Your task to perform on an android device: add a label to a message in the gmail app Image 0: 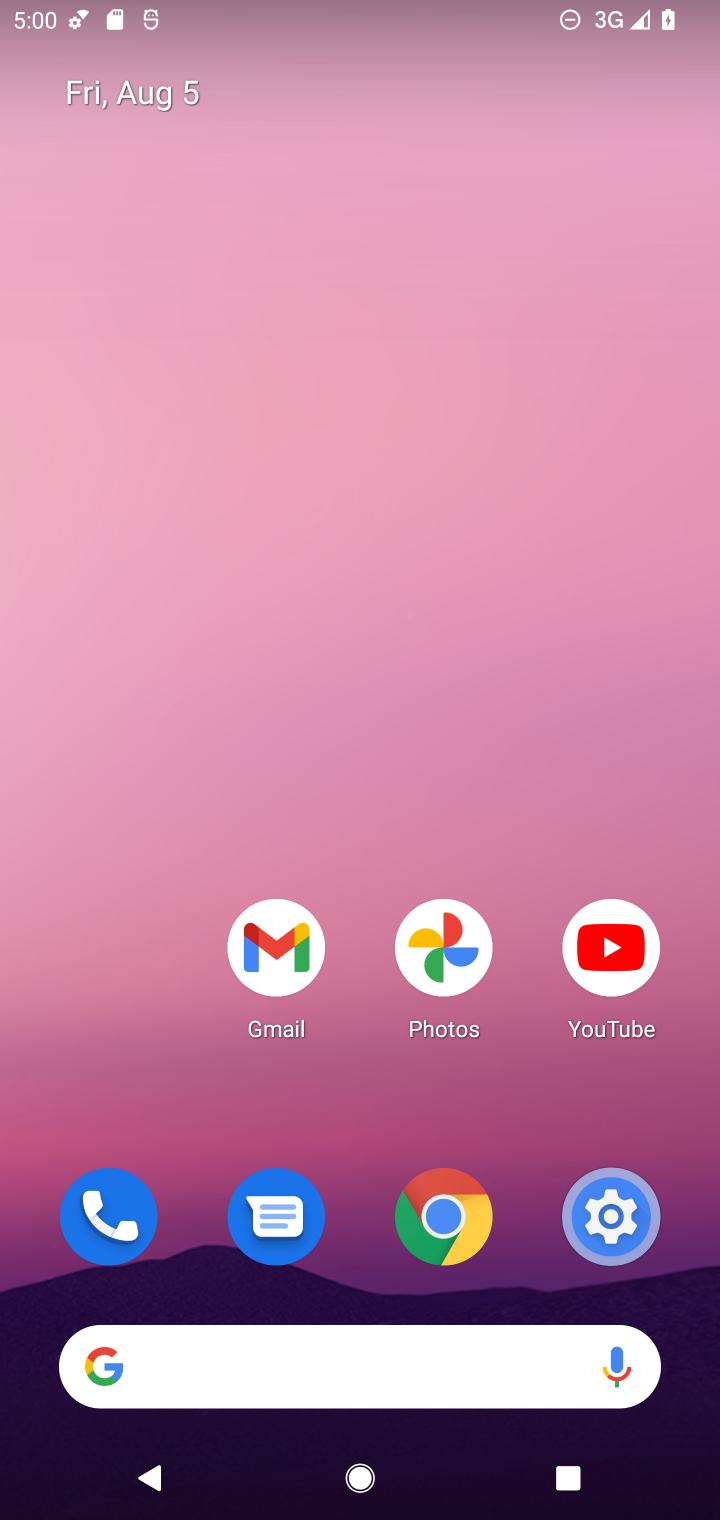
Step 0: click (293, 968)
Your task to perform on an android device: add a label to a message in the gmail app Image 1: 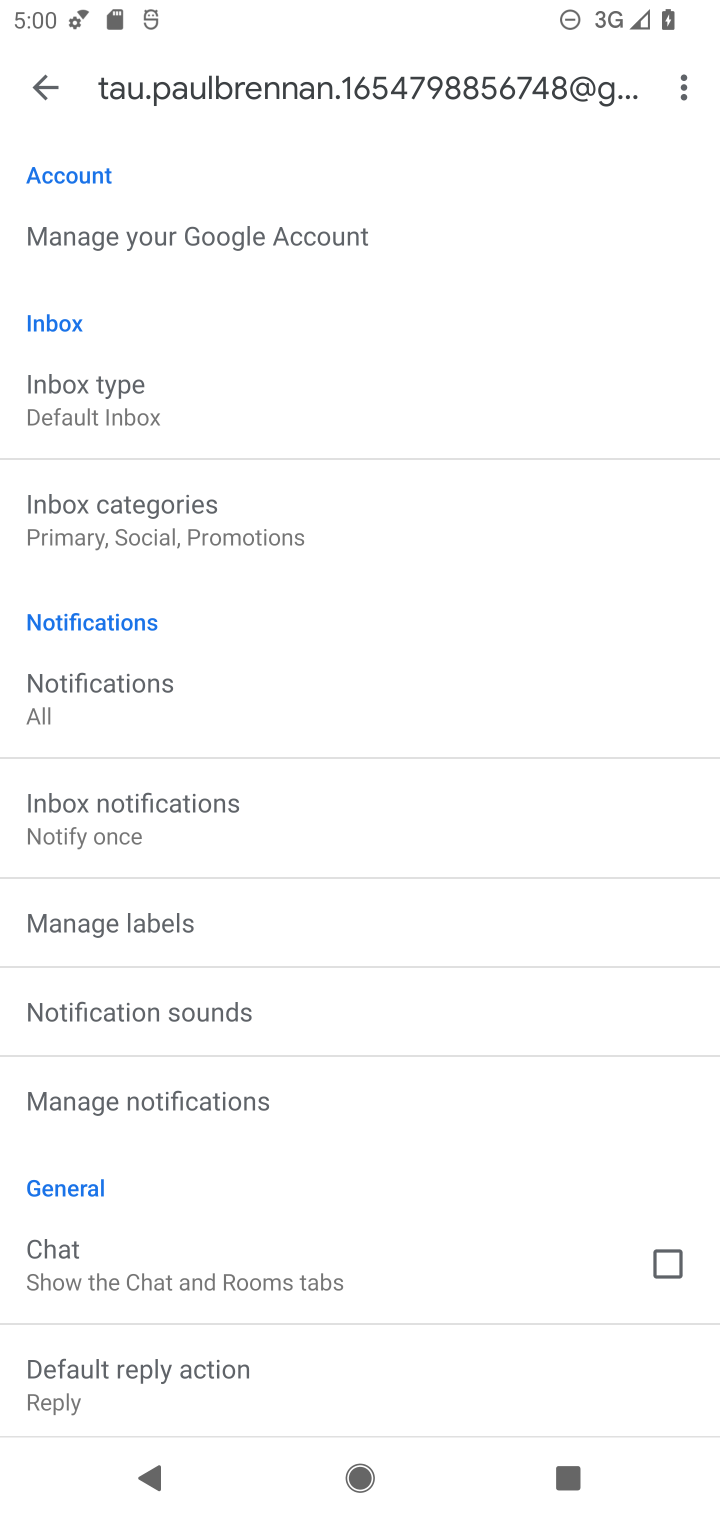
Step 1: click (41, 103)
Your task to perform on an android device: add a label to a message in the gmail app Image 2: 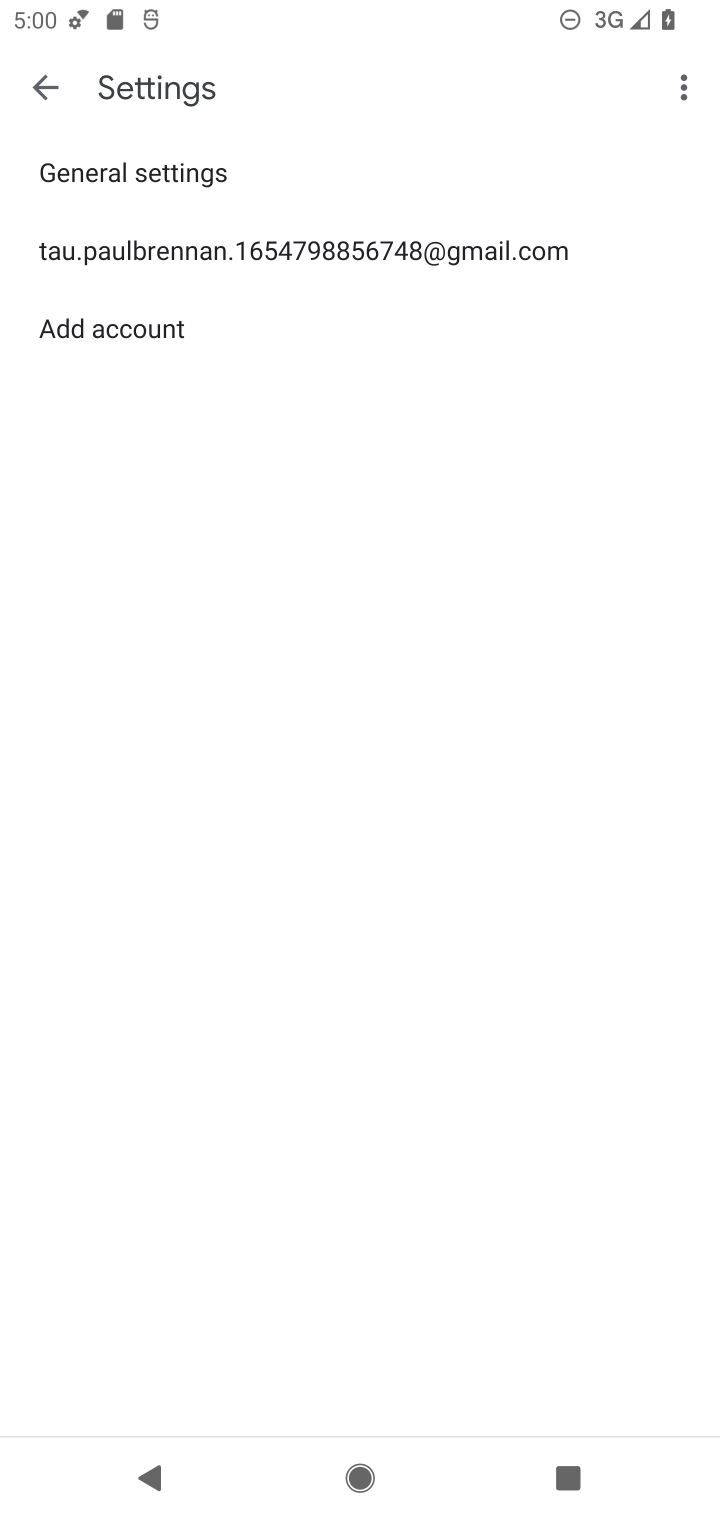
Step 2: click (41, 79)
Your task to perform on an android device: add a label to a message in the gmail app Image 3: 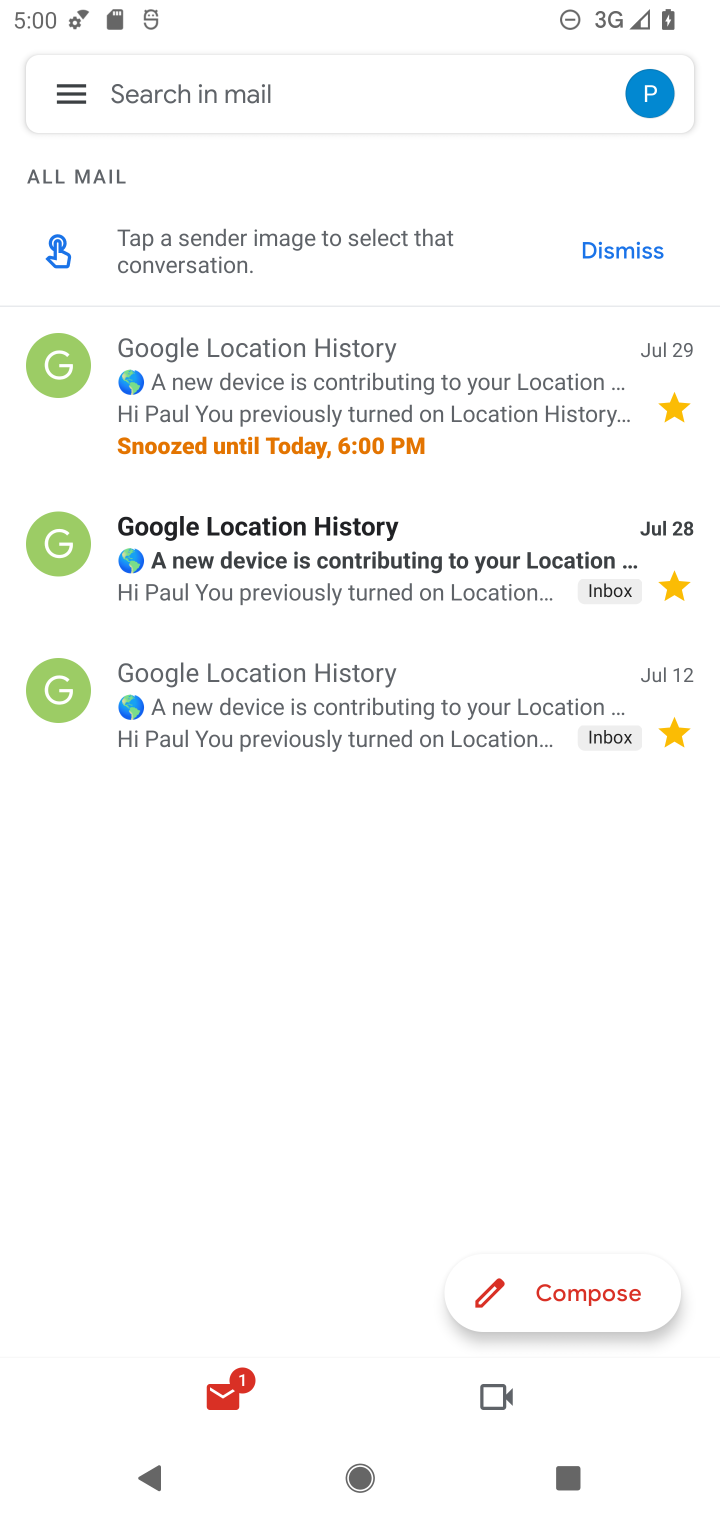
Step 3: click (378, 384)
Your task to perform on an android device: add a label to a message in the gmail app Image 4: 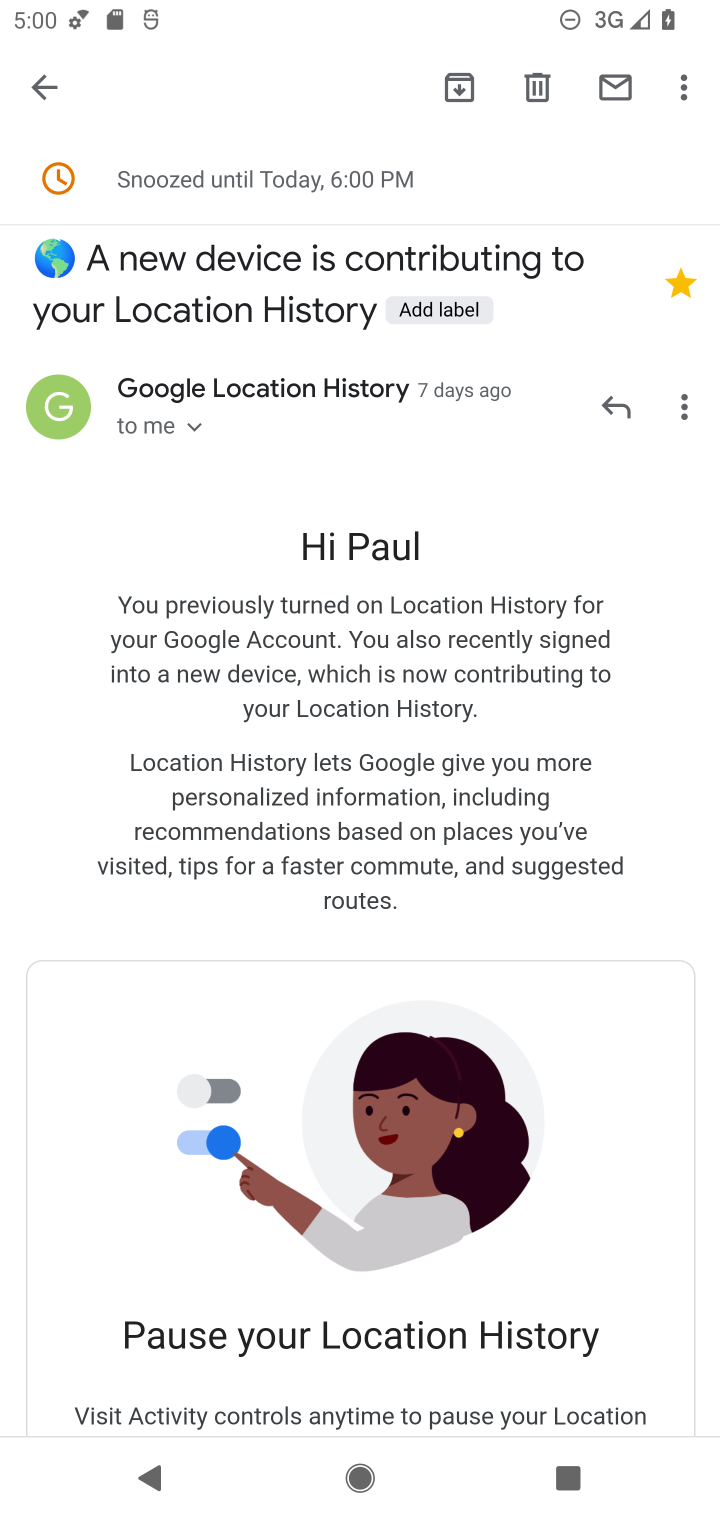
Step 4: click (433, 299)
Your task to perform on an android device: add a label to a message in the gmail app Image 5: 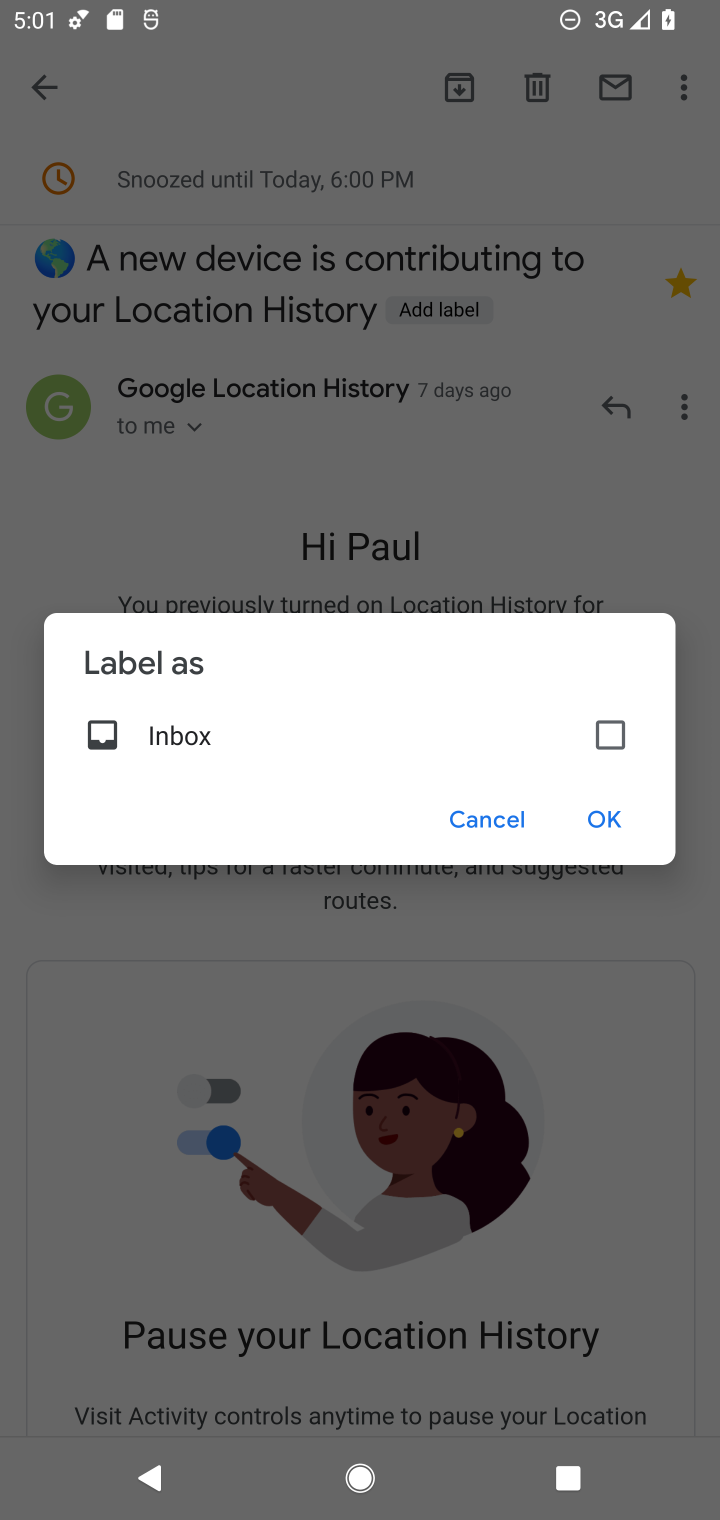
Step 5: click (345, 738)
Your task to perform on an android device: add a label to a message in the gmail app Image 6: 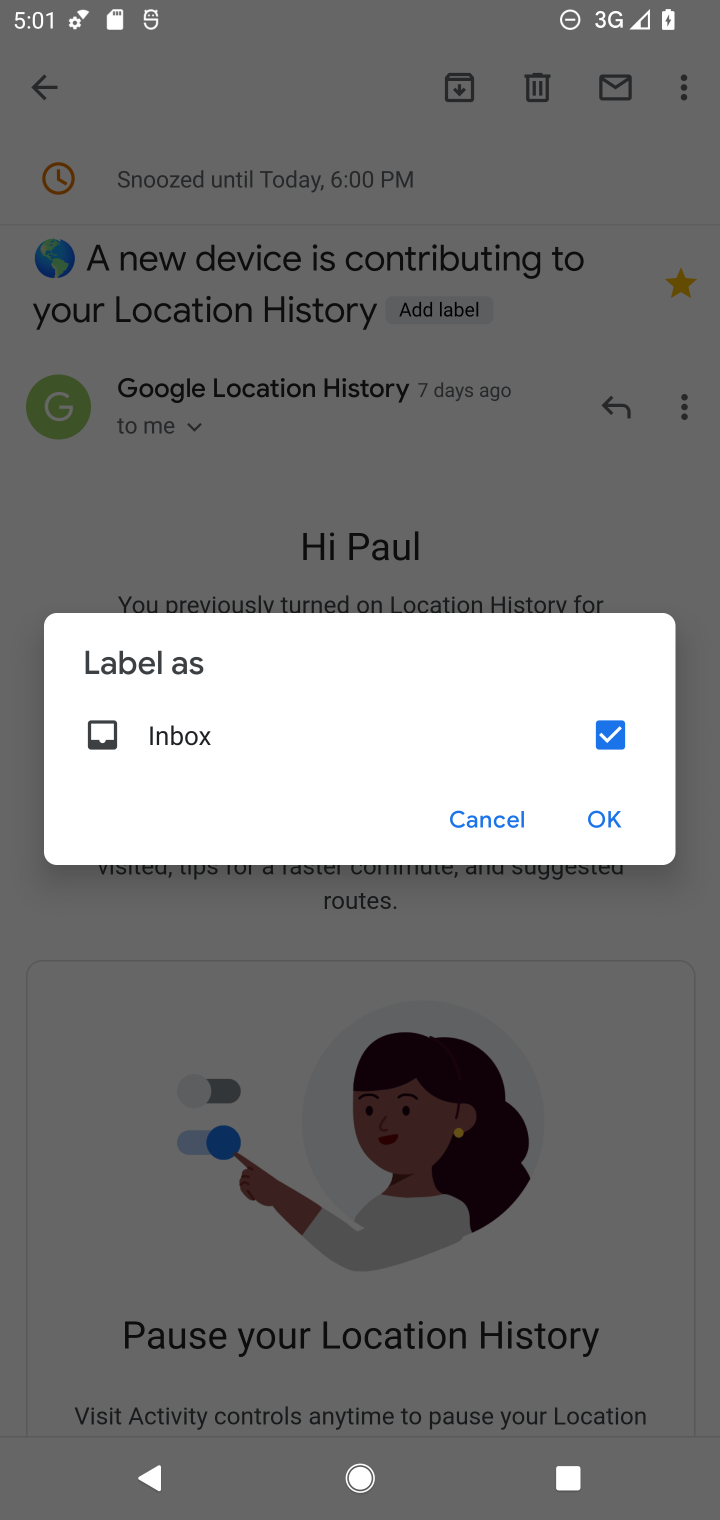
Step 6: click (600, 825)
Your task to perform on an android device: add a label to a message in the gmail app Image 7: 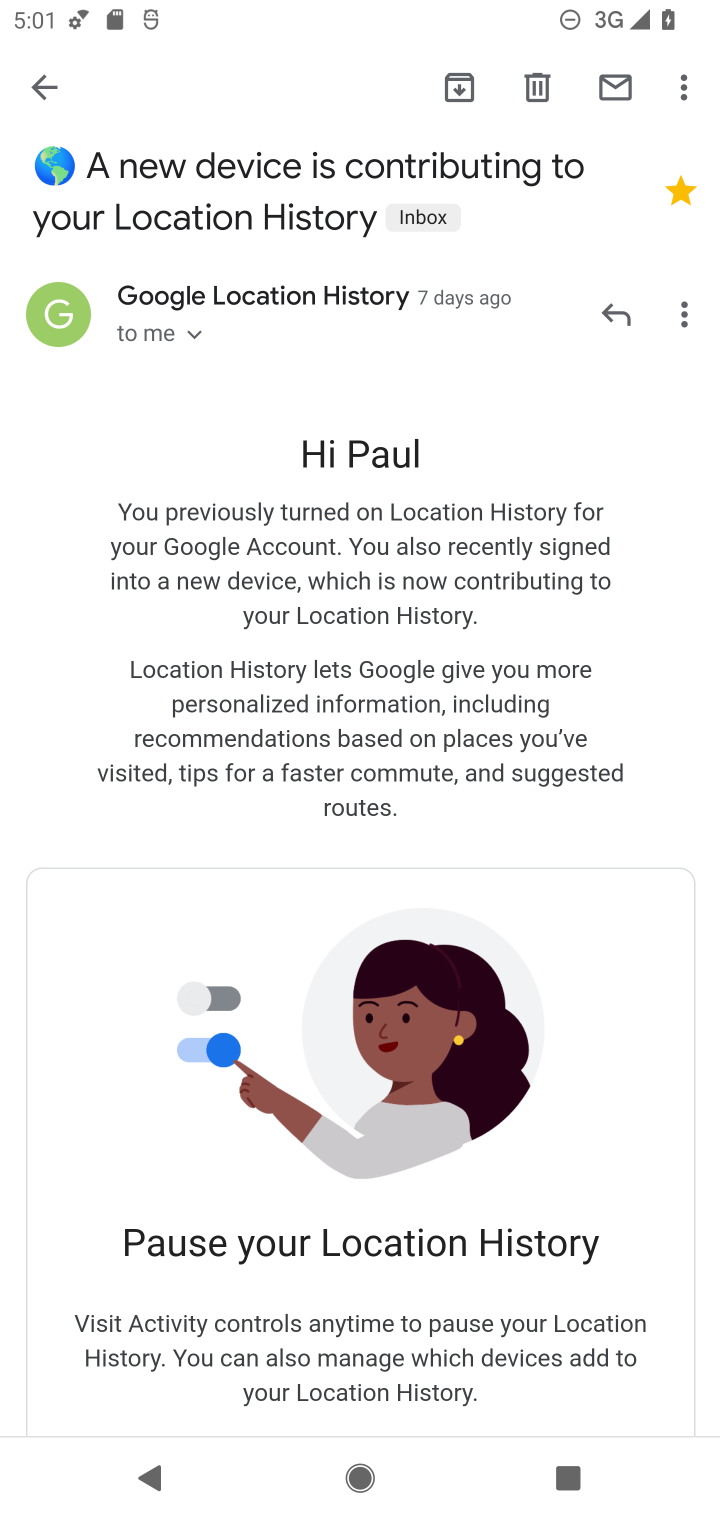
Step 7: task complete